Your task to perform on an android device: When is my next appointment? Image 0: 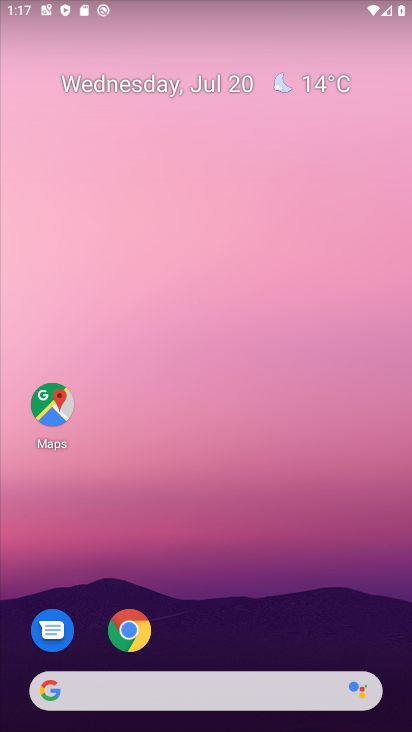
Step 0: drag from (288, 700) to (138, 296)
Your task to perform on an android device: When is my next appointment? Image 1: 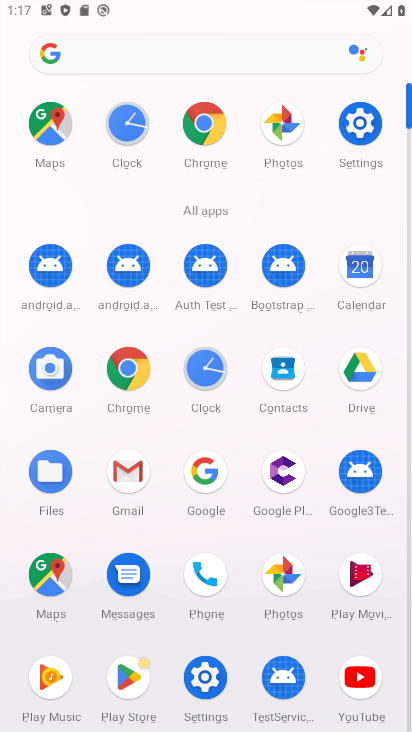
Step 1: click (341, 288)
Your task to perform on an android device: When is my next appointment? Image 2: 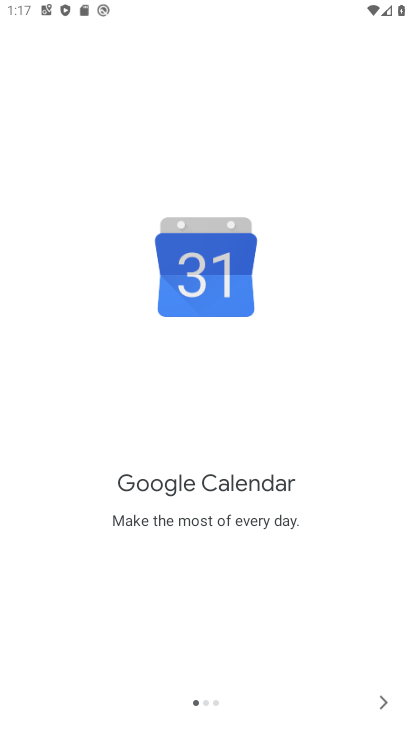
Step 2: click (374, 704)
Your task to perform on an android device: When is my next appointment? Image 3: 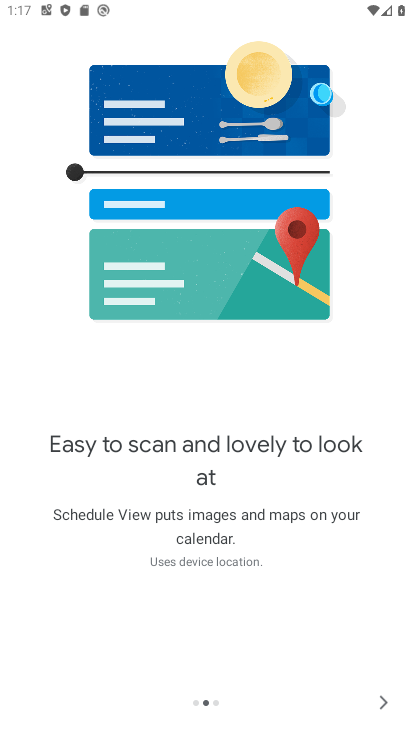
Step 3: click (380, 706)
Your task to perform on an android device: When is my next appointment? Image 4: 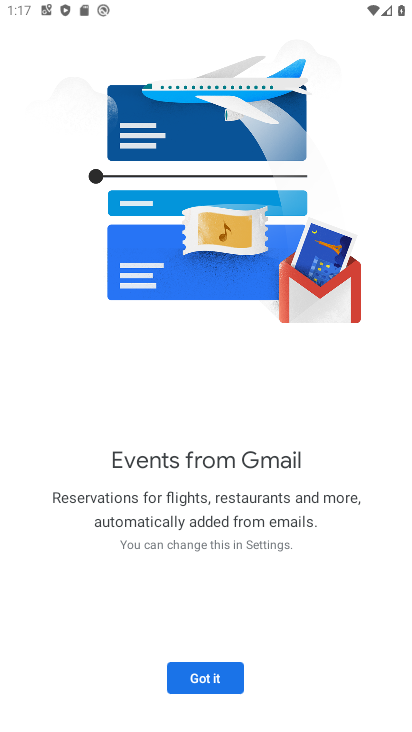
Step 4: click (209, 668)
Your task to perform on an android device: When is my next appointment? Image 5: 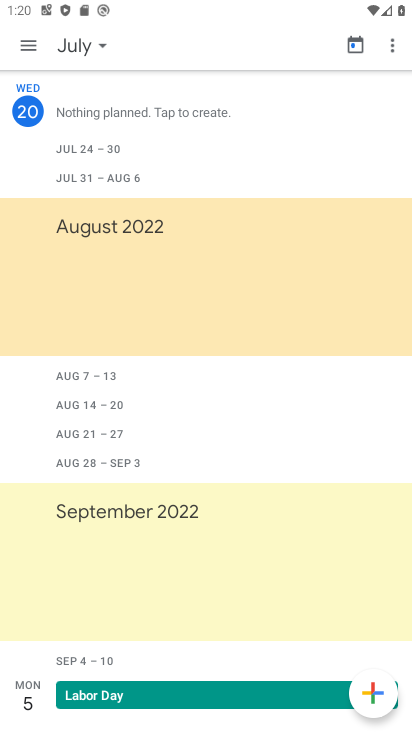
Step 5: task complete